Your task to perform on an android device: open sync settings in chrome Image 0: 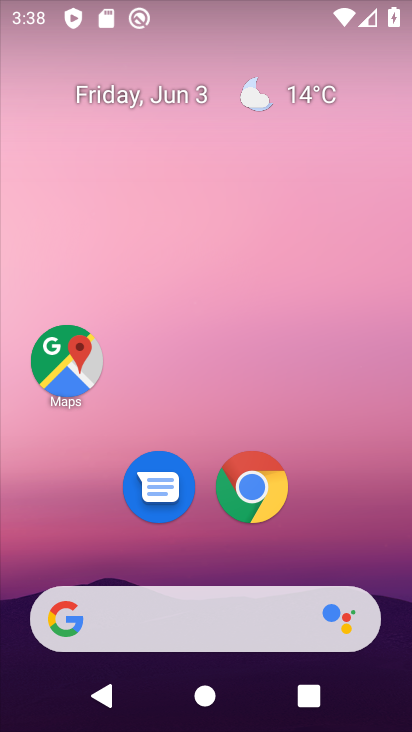
Step 0: click (244, 477)
Your task to perform on an android device: open sync settings in chrome Image 1: 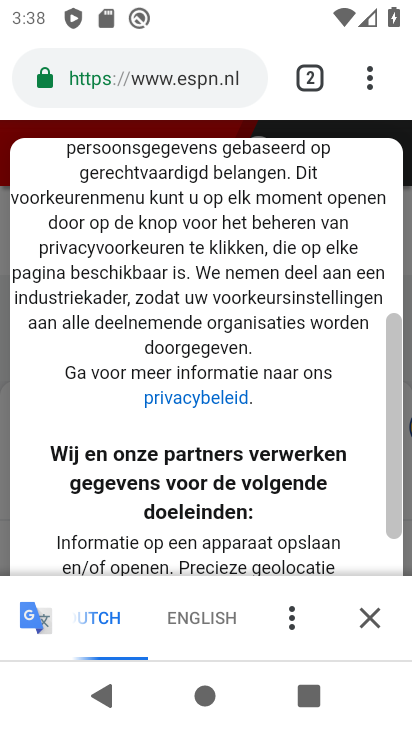
Step 1: drag from (377, 76) to (128, 541)
Your task to perform on an android device: open sync settings in chrome Image 2: 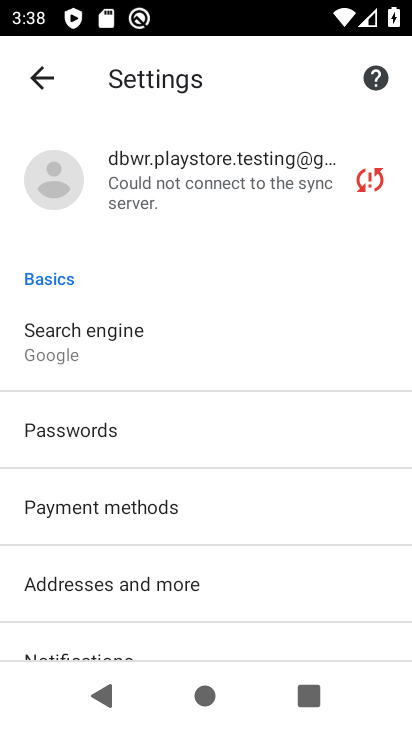
Step 2: click (199, 173)
Your task to perform on an android device: open sync settings in chrome Image 3: 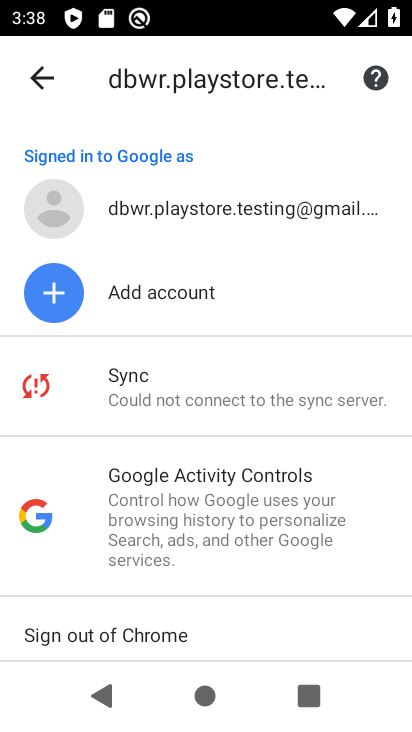
Step 3: task complete